Your task to perform on an android device: Open internet settings Image 0: 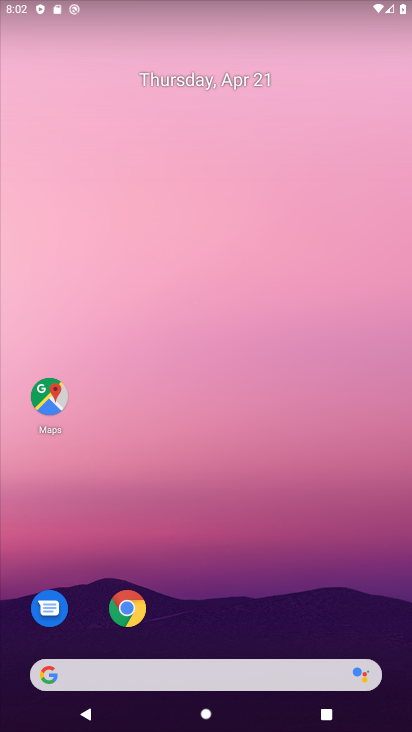
Step 0: drag from (231, 613) to (269, 1)
Your task to perform on an android device: Open internet settings Image 1: 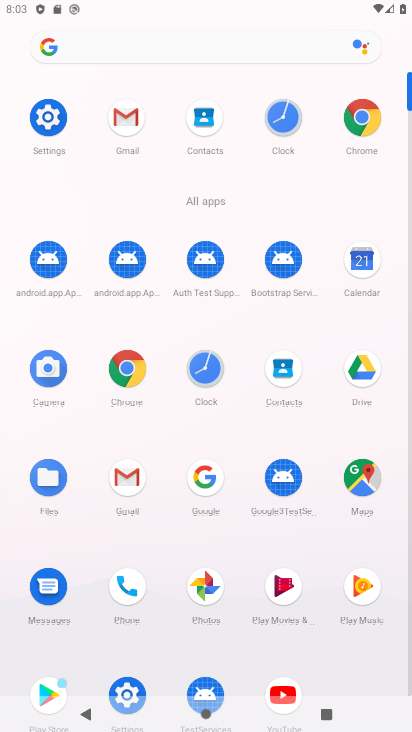
Step 1: click (49, 125)
Your task to perform on an android device: Open internet settings Image 2: 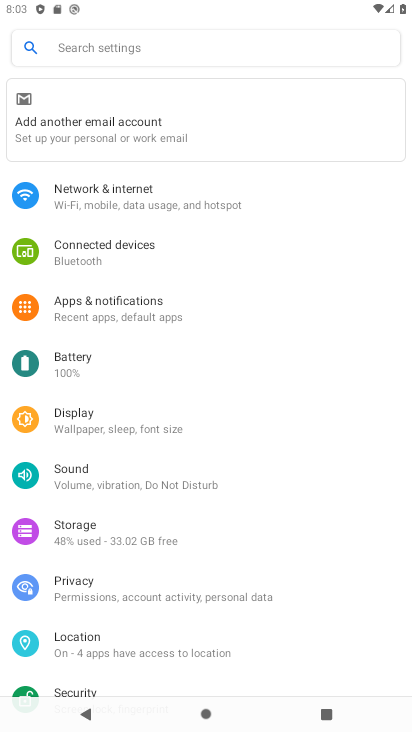
Step 2: click (184, 196)
Your task to perform on an android device: Open internet settings Image 3: 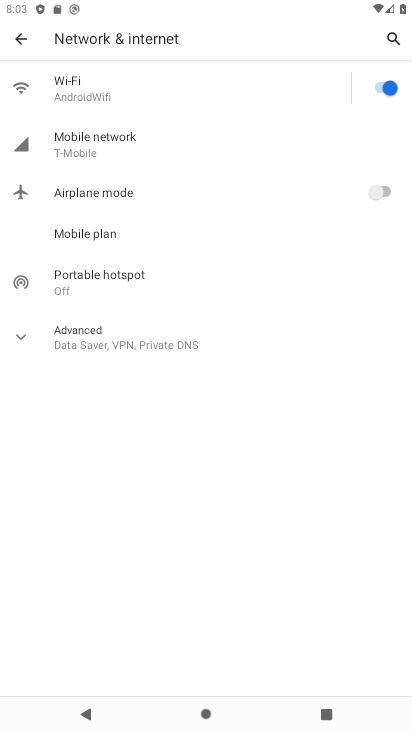
Step 3: task complete